Your task to perform on an android device: Open Android settings Image 0: 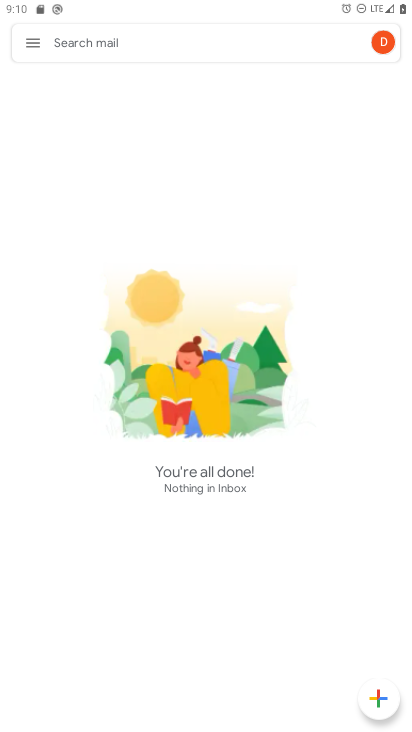
Step 0: press home button
Your task to perform on an android device: Open Android settings Image 1: 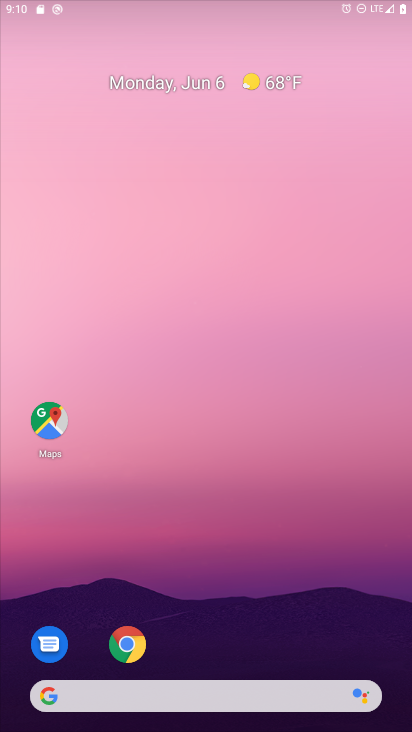
Step 1: drag from (180, 716) to (260, 175)
Your task to perform on an android device: Open Android settings Image 2: 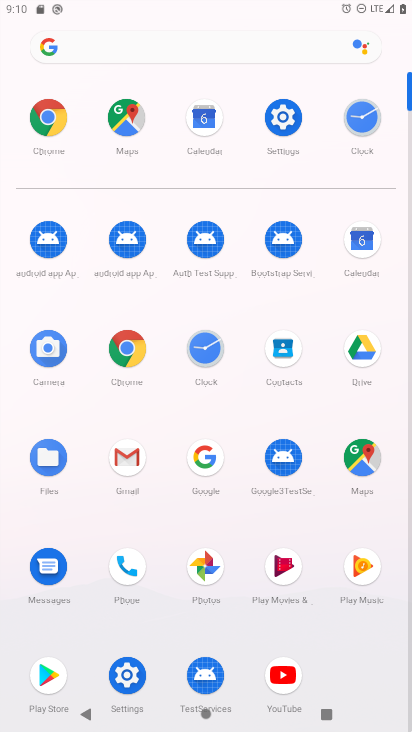
Step 2: click (278, 119)
Your task to perform on an android device: Open Android settings Image 3: 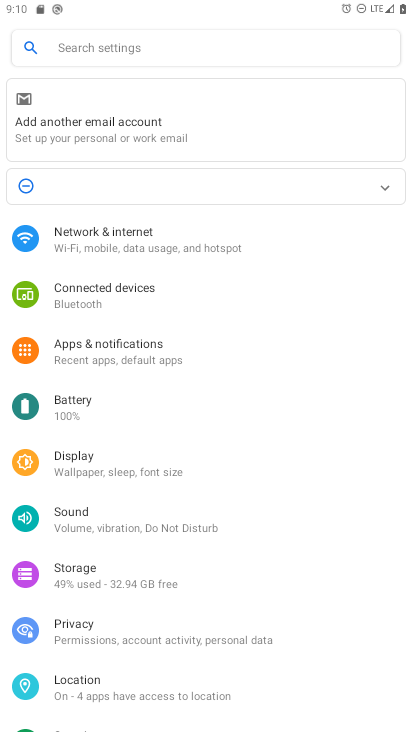
Step 3: click (96, 46)
Your task to perform on an android device: Open Android settings Image 4: 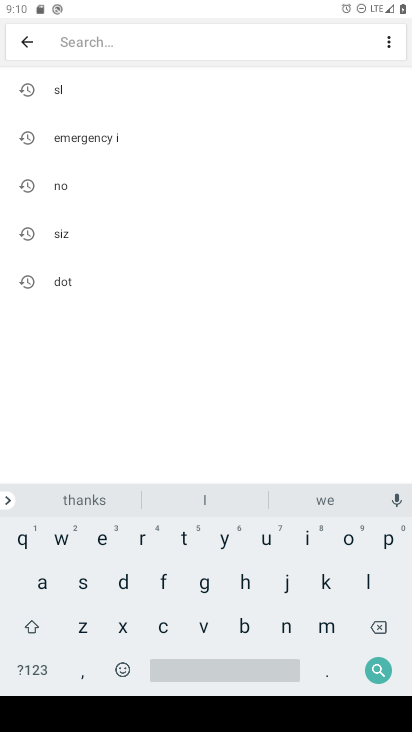
Step 4: click (31, 586)
Your task to perform on an android device: Open Android settings Image 5: 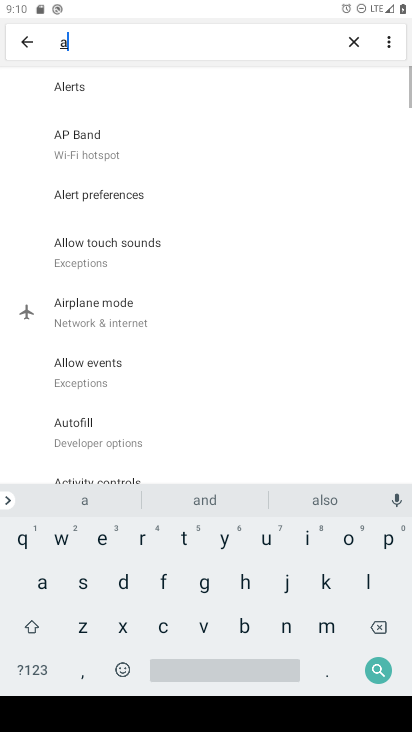
Step 5: click (280, 626)
Your task to perform on an android device: Open Android settings Image 6: 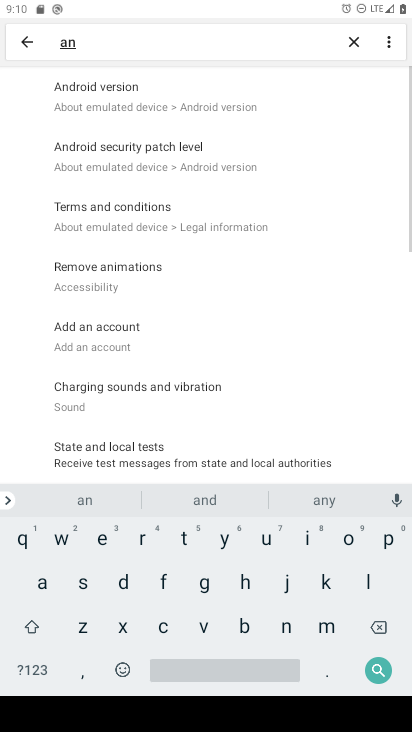
Step 6: click (167, 92)
Your task to perform on an android device: Open Android settings Image 7: 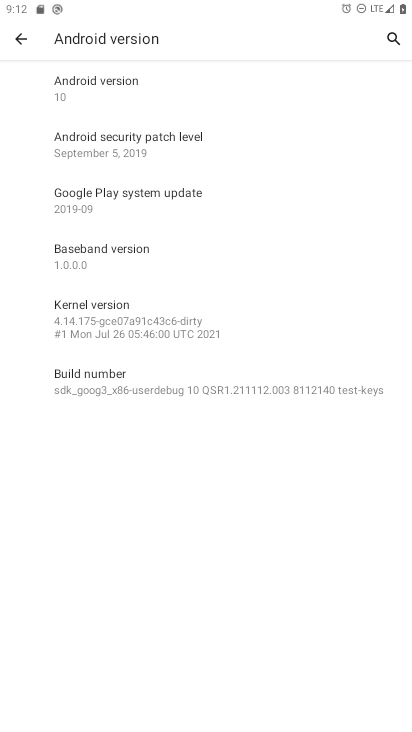
Step 7: task complete